Your task to perform on an android device: Open CNN.com Image 0: 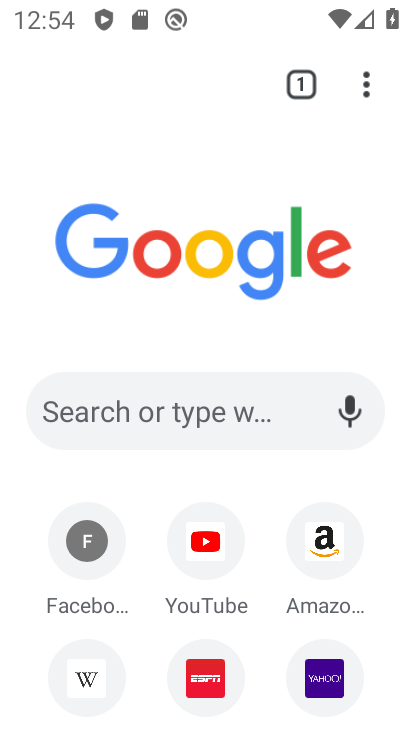
Step 0: click (201, 409)
Your task to perform on an android device: Open CNN.com Image 1: 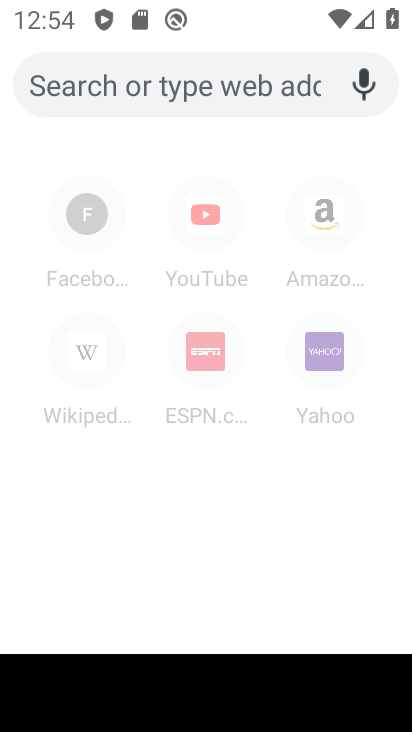
Step 1: type "CNN.com"
Your task to perform on an android device: Open CNN.com Image 2: 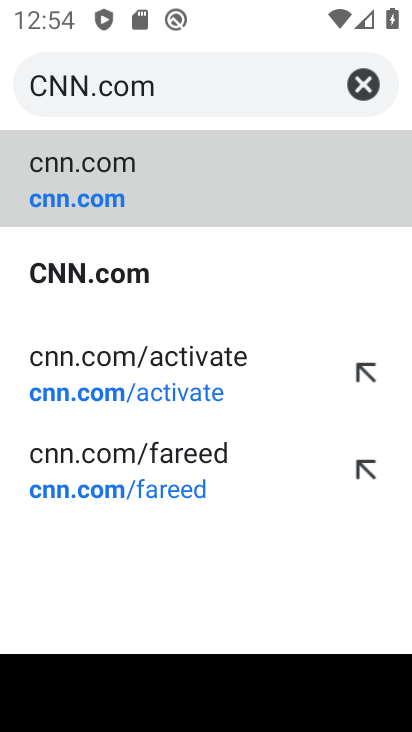
Step 2: click (98, 164)
Your task to perform on an android device: Open CNN.com Image 3: 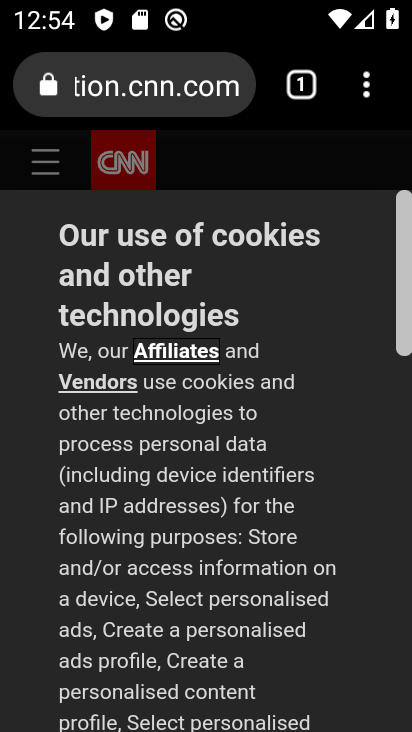
Step 3: task complete